Your task to perform on an android device: change notifications settings Image 0: 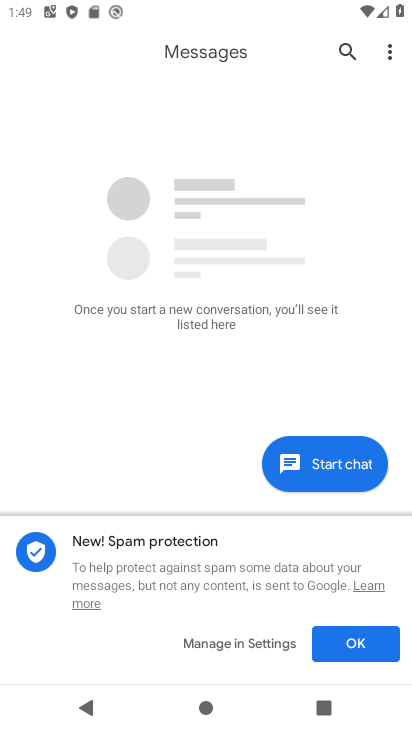
Step 0: press back button
Your task to perform on an android device: change notifications settings Image 1: 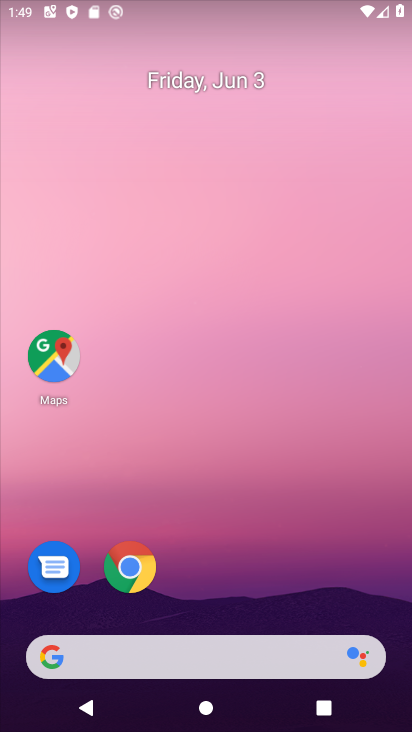
Step 1: drag from (195, 602) to (254, 32)
Your task to perform on an android device: change notifications settings Image 2: 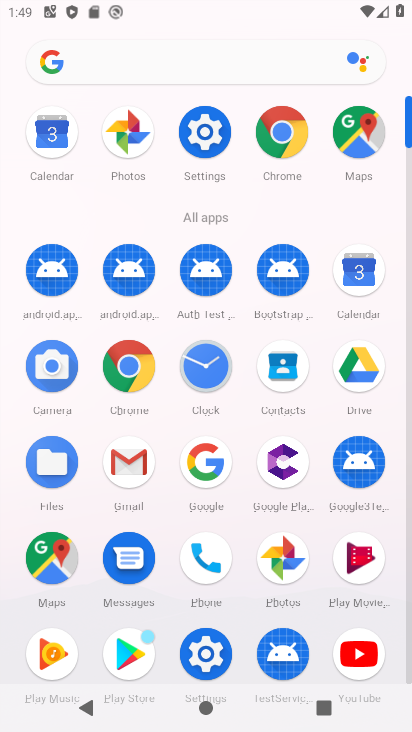
Step 2: click (211, 123)
Your task to perform on an android device: change notifications settings Image 3: 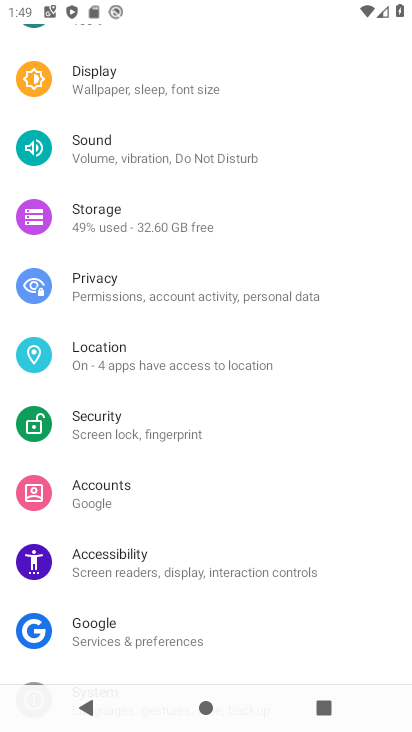
Step 3: drag from (255, 161) to (234, 647)
Your task to perform on an android device: change notifications settings Image 4: 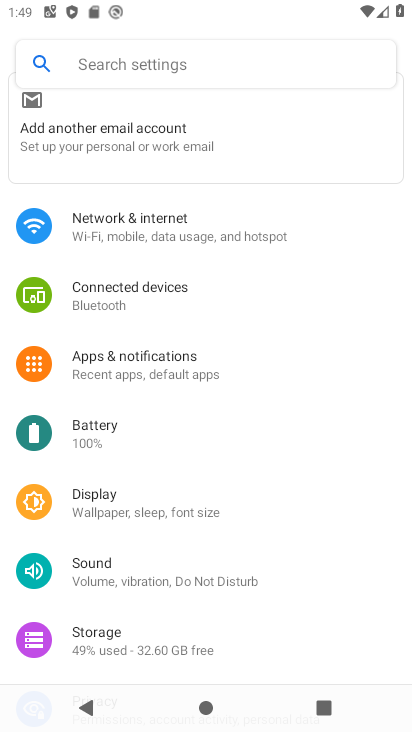
Step 4: click (154, 368)
Your task to perform on an android device: change notifications settings Image 5: 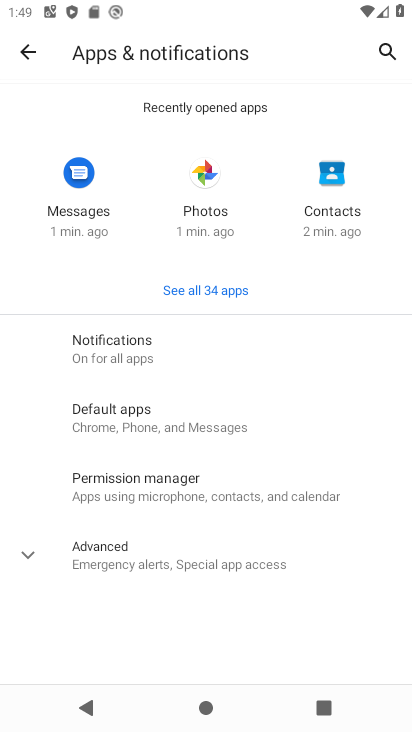
Step 5: click (148, 339)
Your task to perform on an android device: change notifications settings Image 6: 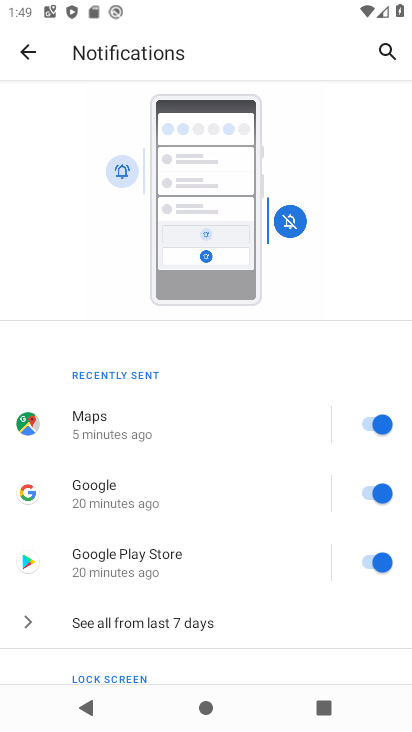
Step 6: task complete